Your task to perform on an android device: turn on translation in the chrome app Image 0: 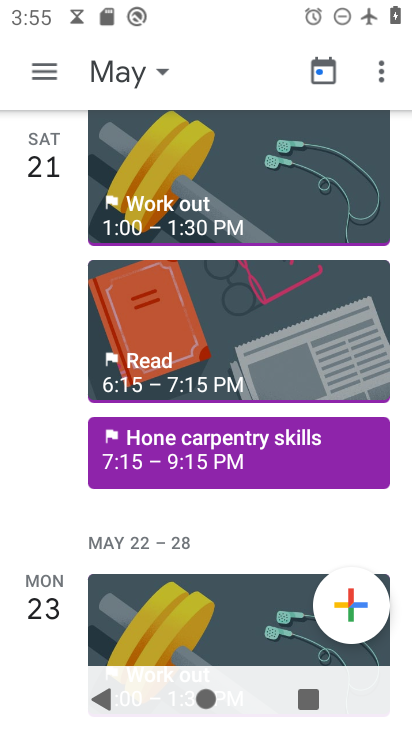
Step 0: press home button
Your task to perform on an android device: turn on translation in the chrome app Image 1: 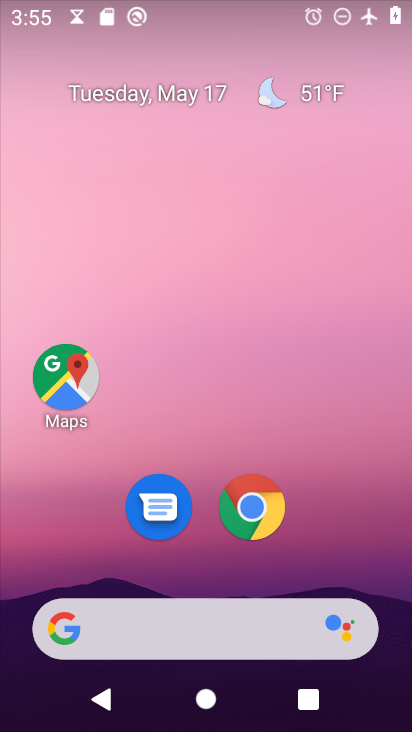
Step 1: click (245, 509)
Your task to perform on an android device: turn on translation in the chrome app Image 2: 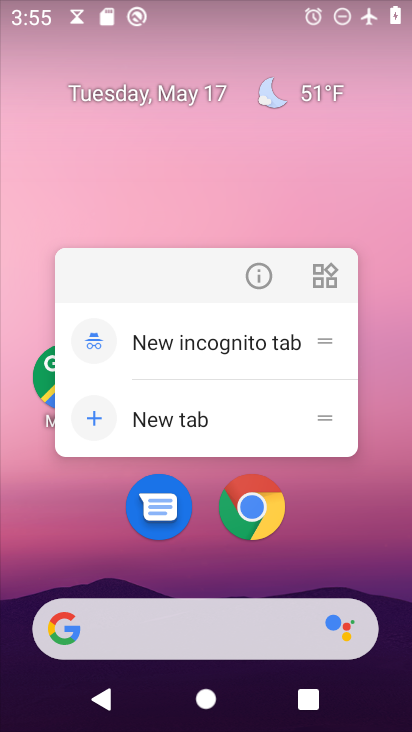
Step 2: click (256, 507)
Your task to perform on an android device: turn on translation in the chrome app Image 3: 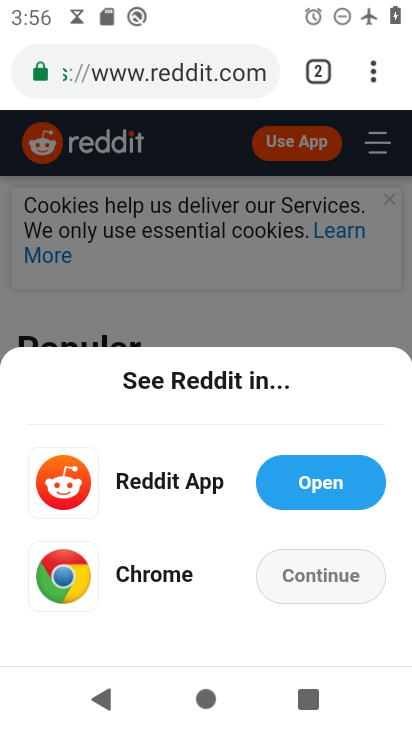
Step 3: click (378, 73)
Your task to perform on an android device: turn on translation in the chrome app Image 4: 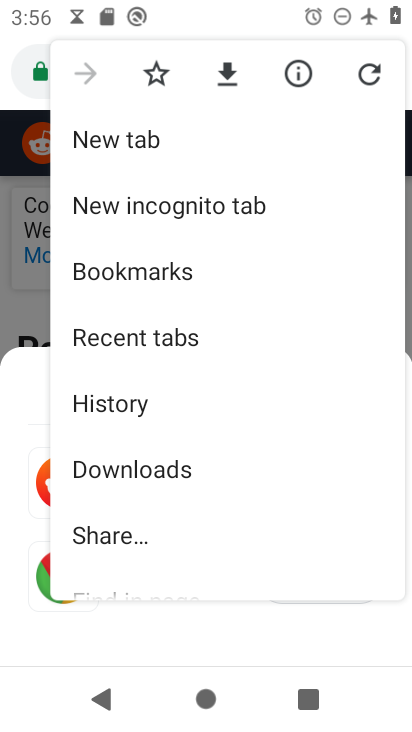
Step 4: drag from (237, 531) to (221, 312)
Your task to perform on an android device: turn on translation in the chrome app Image 5: 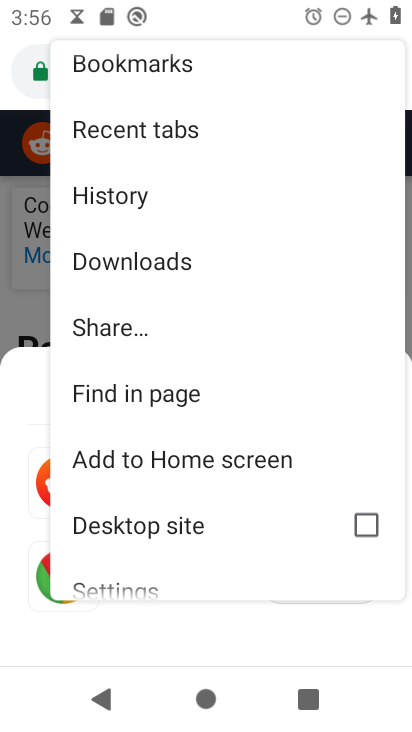
Step 5: click (154, 586)
Your task to perform on an android device: turn on translation in the chrome app Image 6: 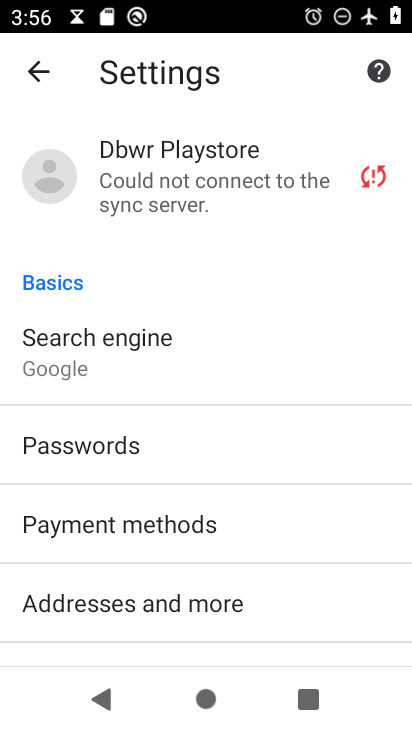
Step 6: drag from (158, 620) to (183, 293)
Your task to perform on an android device: turn on translation in the chrome app Image 7: 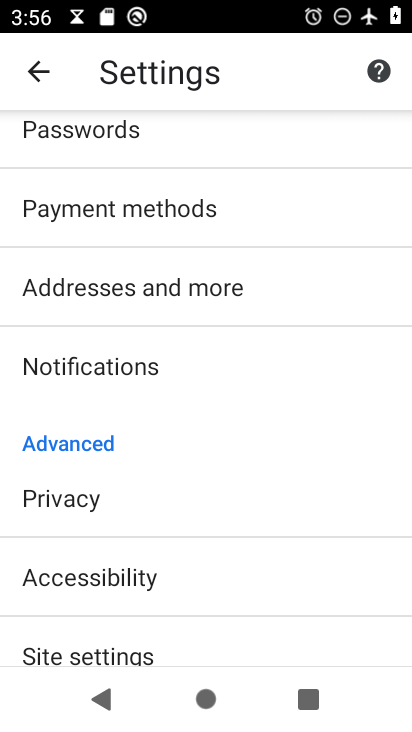
Step 7: drag from (221, 606) to (234, 340)
Your task to perform on an android device: turn on translation in the chrome app Image 8: 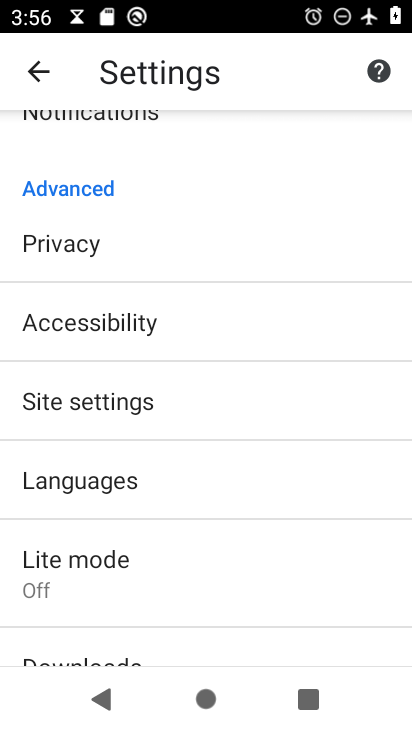
Step 8: click (129, 495)
Your task to perform on an android device: turn on translation in the chrome app Image 9: 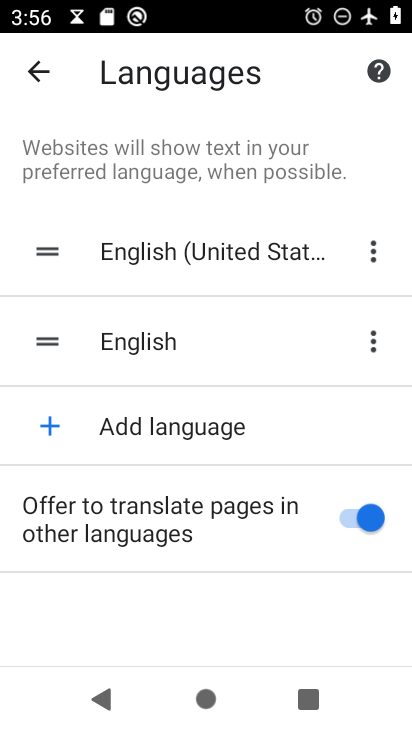
Step 9: task complete